Your task to perform on an android device: Open Chrome and go to settings Image 0: 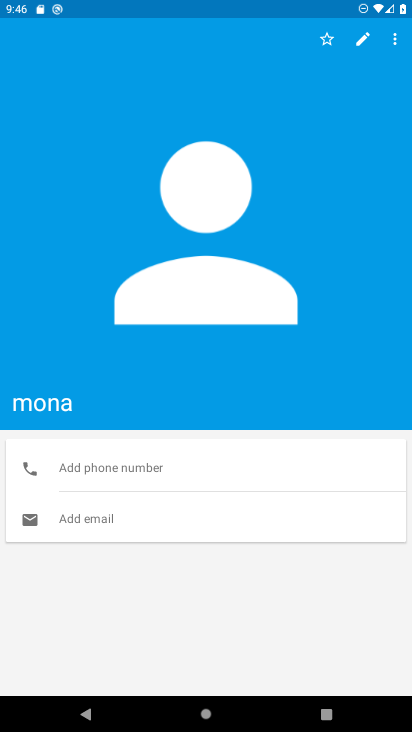
Step 0: press home button
Your task to perform on an android device: Open Chrome and go to settings Image 1: 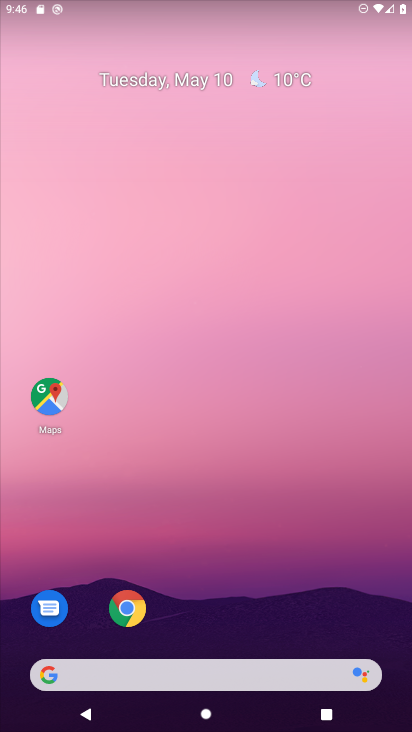
Step 1: drag from (368, 606) to (296, 47)
Your task to perform on an android device: Open Chrome and go to settings Image 2: 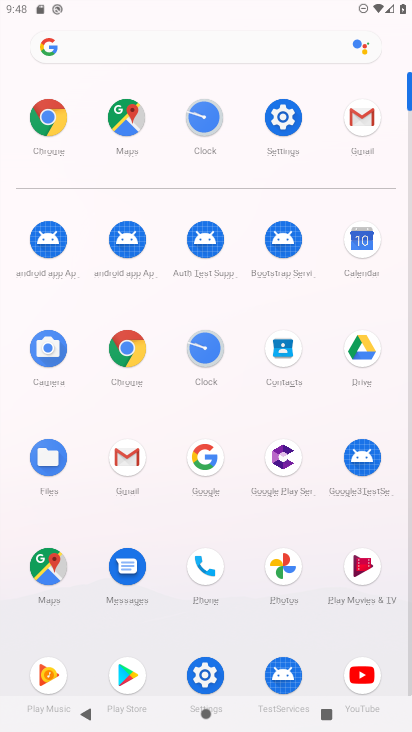
Step 2: click (120, 367)
Your task to perform on an android device: Open Chrome and go to settings Image 3: 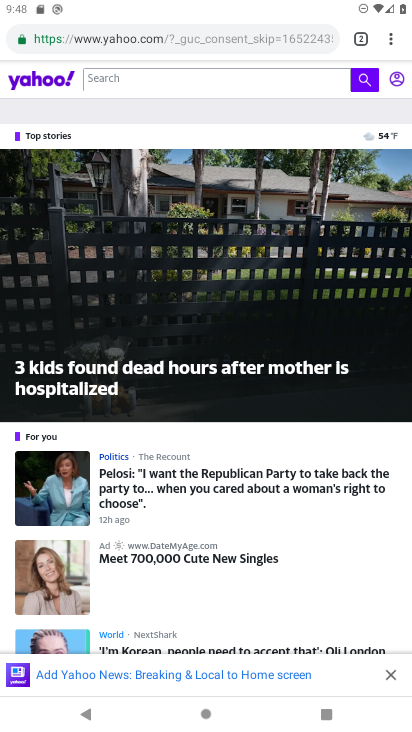
Step 3: press back button
Your task to perform on an android device: Open Chrome and go to settings Image 4: 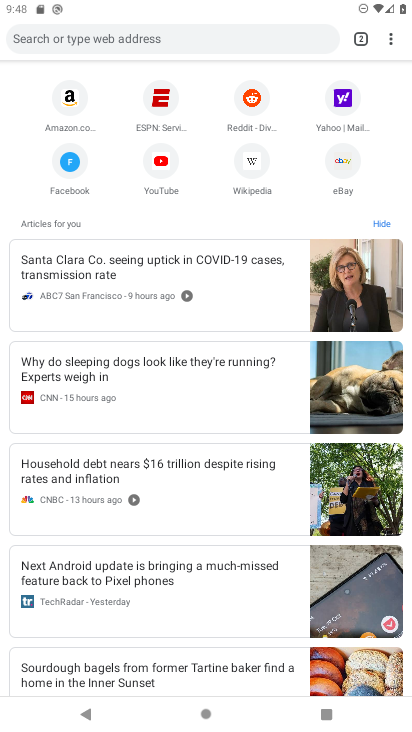
Step 4: click (388, 33)
Your task to perform on an android device: Open Chrome and go to settings Image 5: 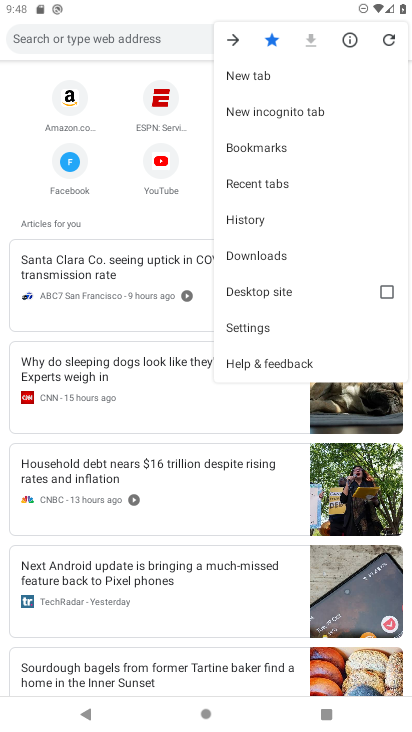
Step 5: click (255, 330)
Your task to perform on an android device: Open Chrome and go to settings Image 6: 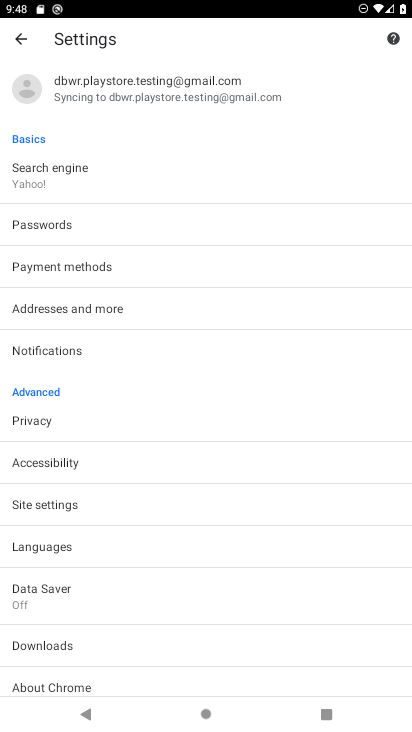
Step 6: task complete